Your task to perform on an android device: Open settings Image 0: 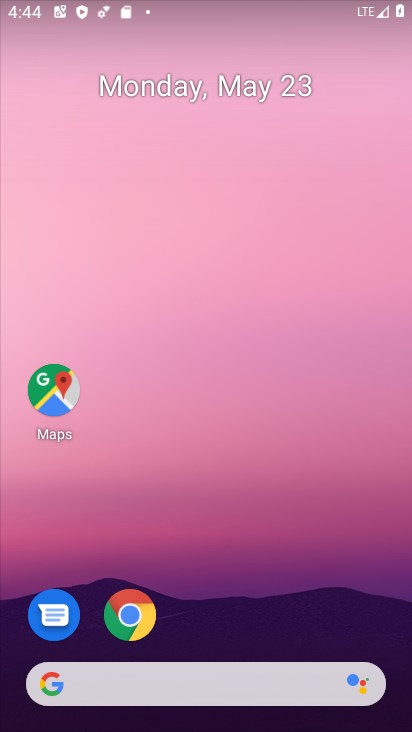
Step 0: drag from (208, 627) to (241, 164)
Your task to perform on an android device: Open settings Image 1: 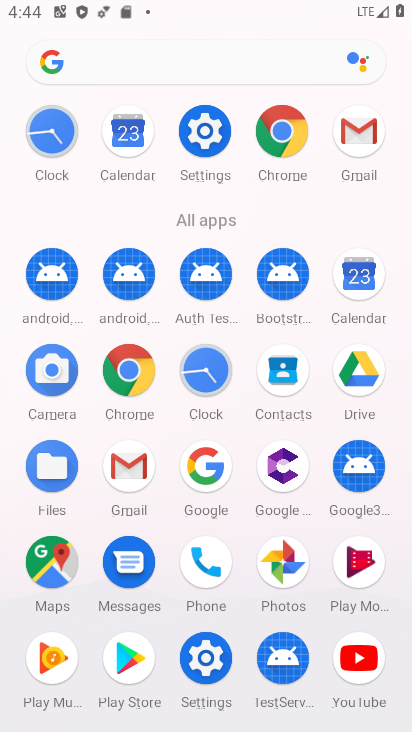
Step 1: click (210, 670)
Your task to perform on an android device: Open settings Image 2: 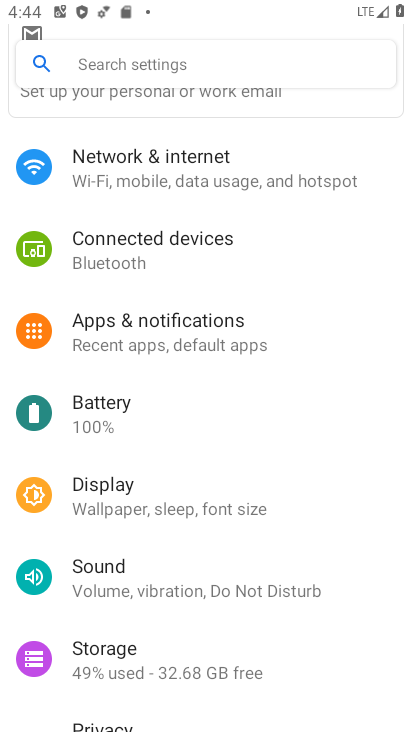
Step 2: task complete